Your task to perform on an android device: turn on translation in the chrome app Image 0: 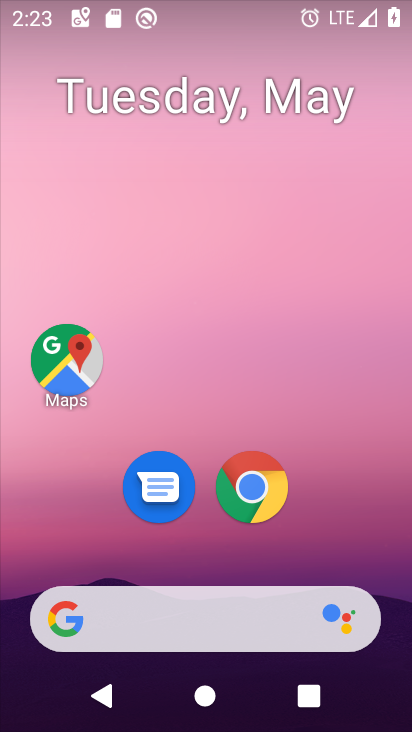
Step 0: click (250, 488)
Your task to perform on an android device: turn on translation in the chrome app Image 1: 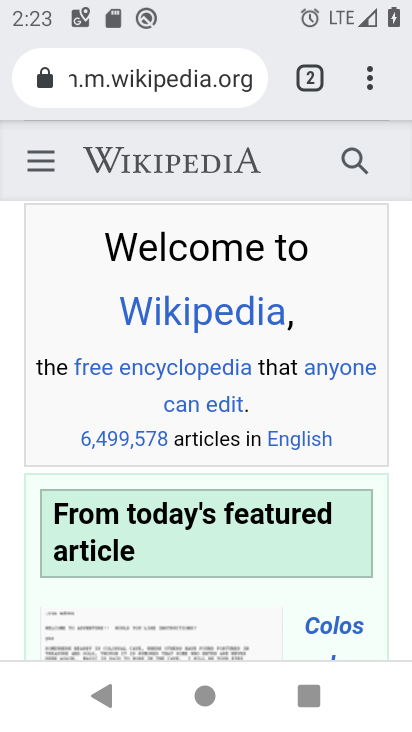
Step 1: click (369, 65)
Your task to perform on an android device: turn on translation in the chrome app Image 2: 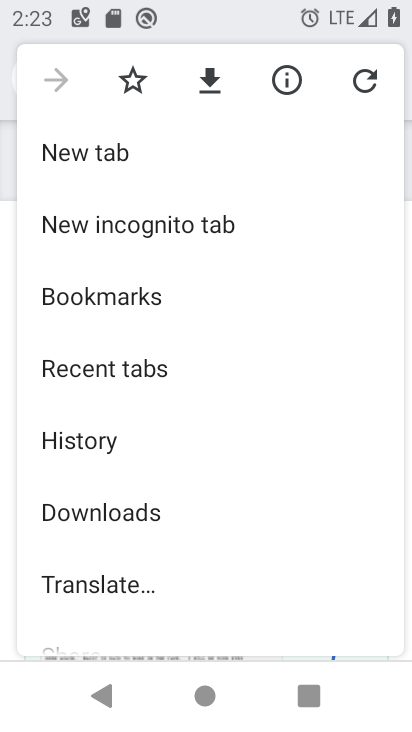
Step 2: drag from (7, 560) to (178, 234)
Your task to perform on an android device: turn on translation in the chrome app Image 3: 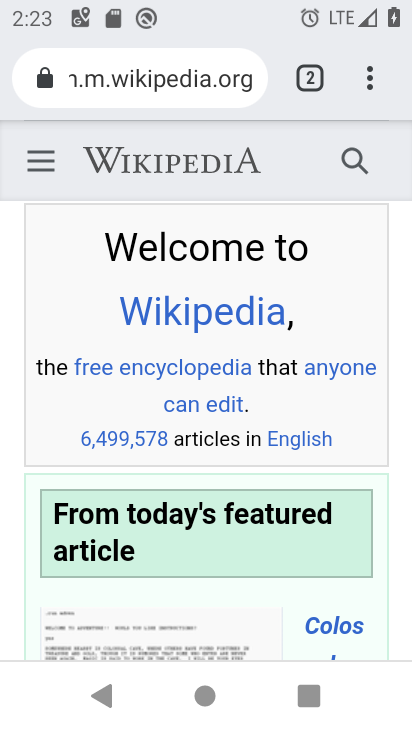
Step 3: click (359, 82)
Your task to perform on an android device: turn on translation in the chrome app Image 4: 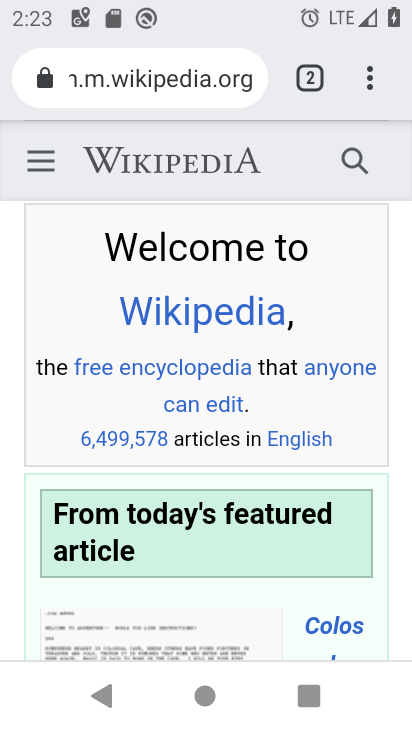
Step 4: click (363, 76)
Your task to perform on an android device: turn on translation in the chrome app Image 5: 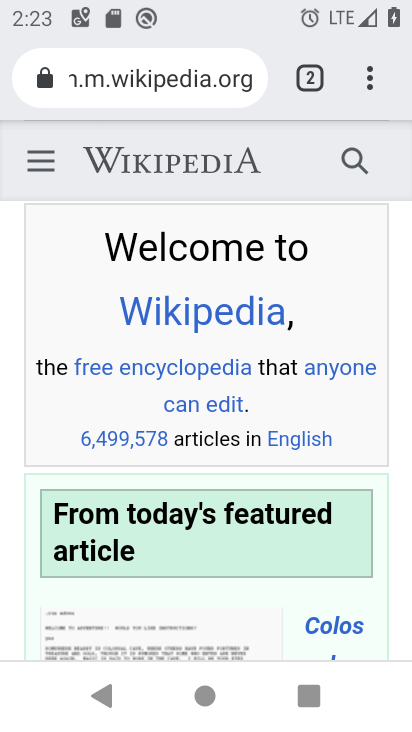
Step 5: click (365, 76)
Your task to perform on an android device: turn on translation in the chrome app Image 6: 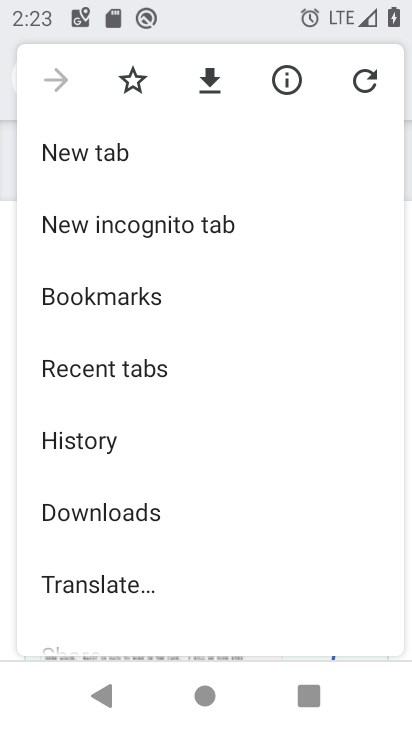
Step 6: click (171, 597)
Your task to perform on an android device: turn on translation in the chrome app Image 7: 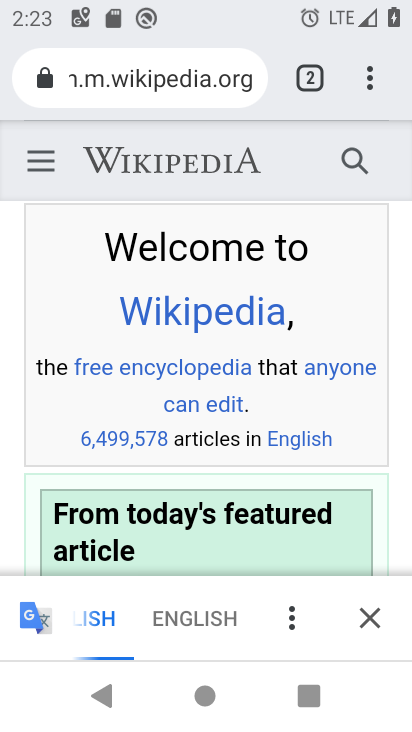
Step 7: click (367, 80)
Your task to perform on an android device: turn on translation in the chrome app Image 8: 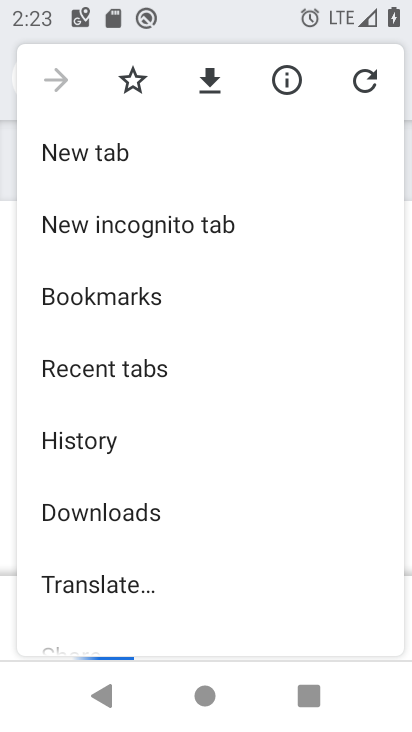
Step 8: click (139, 581)
Your task to perform on an android device: turn on translation in the chrome app Image 9: 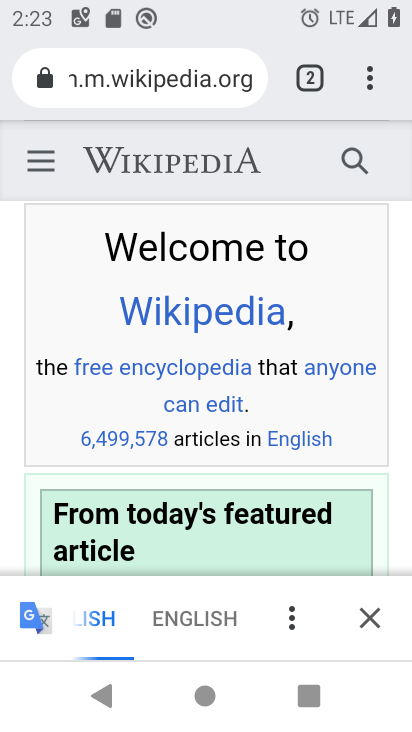
Step 9: click (377, 85)
Your task to perform on an android device: turn on translation in the chrome app Image 10: 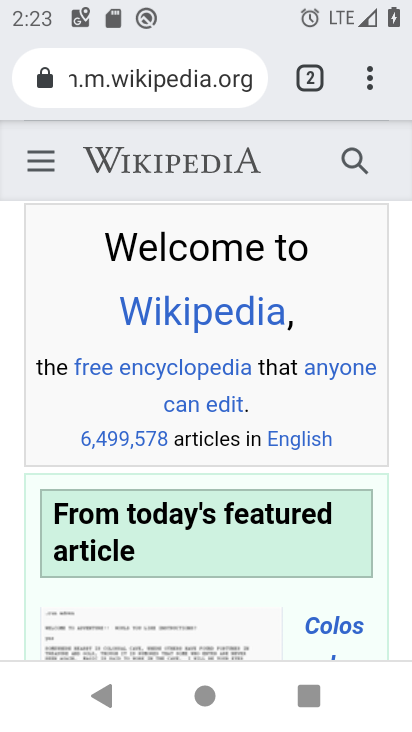
Step 10: click (366, 77)
Your task to perform on an android device: turn on translation in the chrome app Image 11: 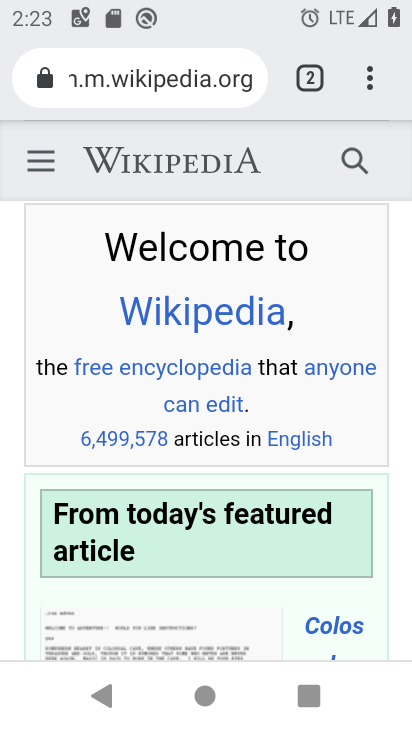
Step 11: click (357, 84)
Your task to perform on an android device: turn on translation in the chrome app Image 12: 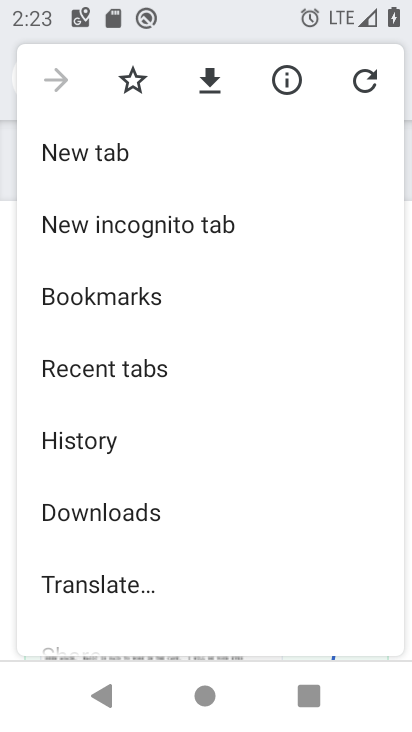
Step 12: drag from (79, 593) to (210, 125)
Your task to perform on an android device: turn on translation in the chrome app Image 13: 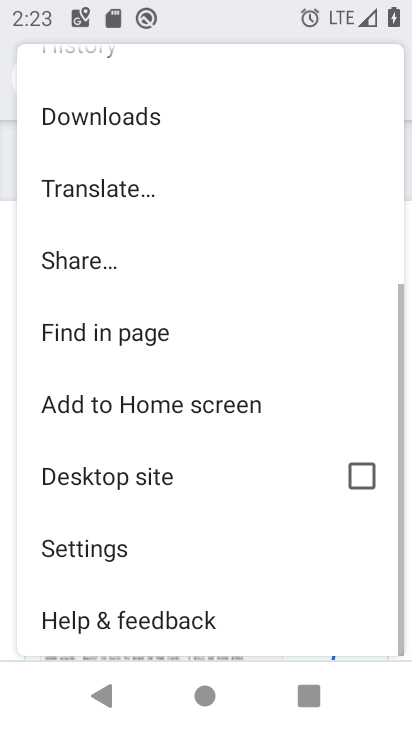
Step 13: click (96, 545)
Your task to perform on an android device: turn on translation in the chrome app Image 14: 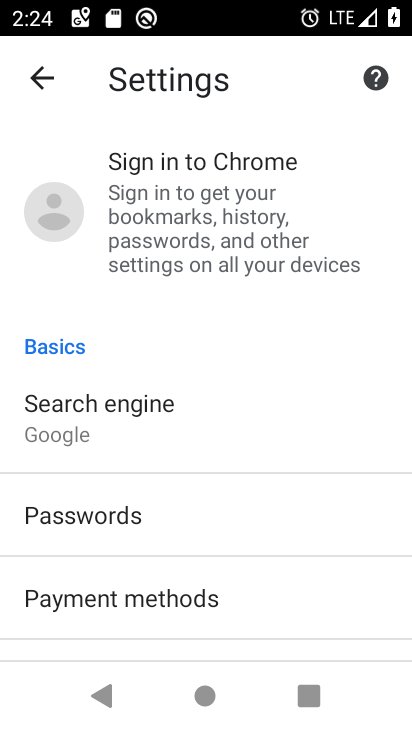
Step 14: drag from (38, 539) to (286, 169)
Your task to perform on an android device: turn on translation in the chrome app Image 15: 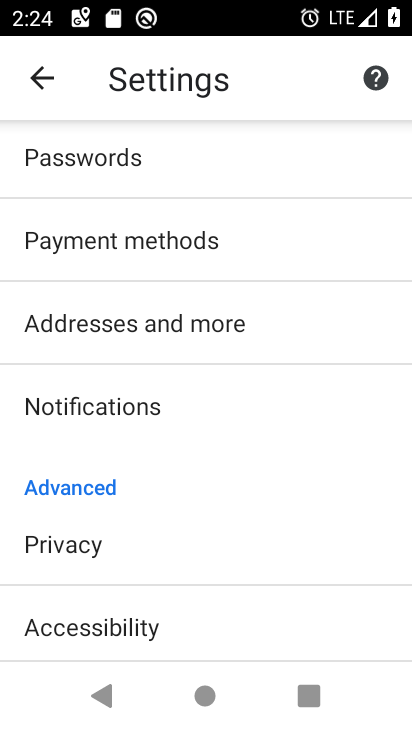
Step 15: drag from (3, 665) to (230, 278)
Your task to perform on an android device: turn on translation in the chrome app Image 16: 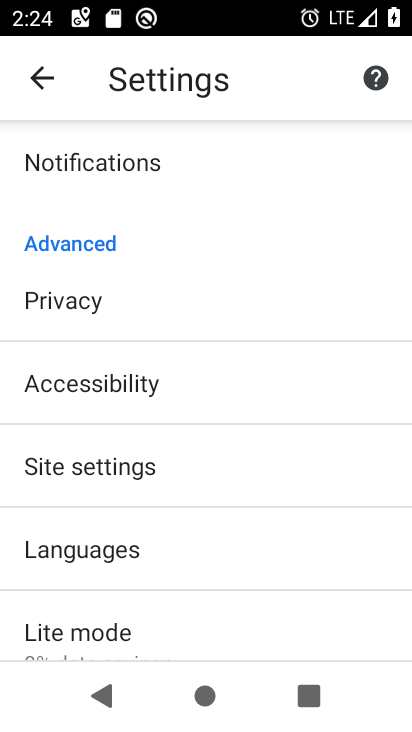
Step 16: click (60, 544)
Your task to perform on an android device: turn on translation in the chrome app Image 17: 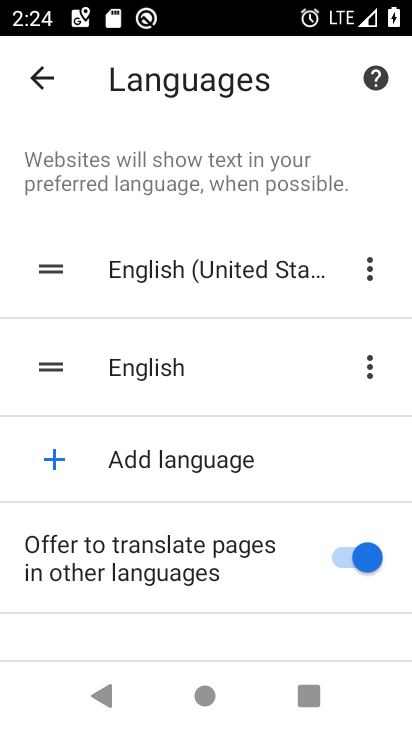
Step 17: task complete